Your task to perform on an android device: Show the shopping cart on bestbuy.com. Image 0: 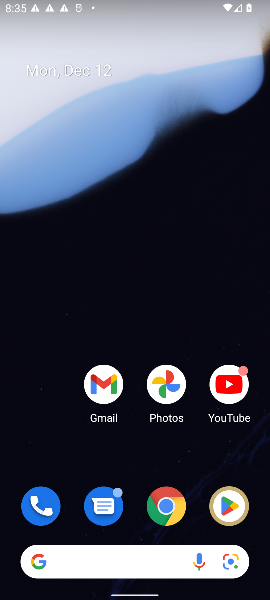
Step 0: click (140, 562)
Your task to perform on an android device: Show the shopping cart on bestbuy.com. Image 1: 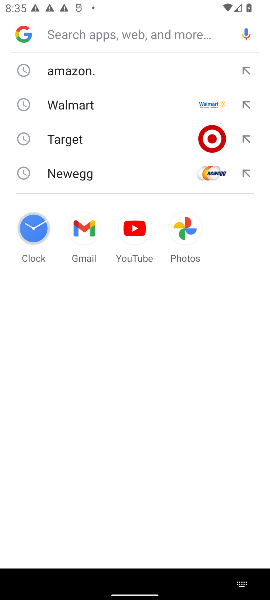
Step 1: type "bestbuy"
Your task to perform on an android device: Show the shopping cart on bestbuy.com. Image 2: 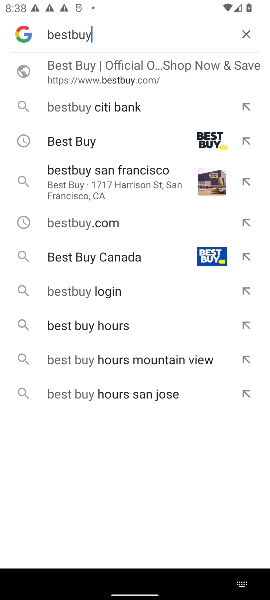
Step 2: click (77, 77)
Your task to perform on an android device: Show the shopping cart on bestbuy.com. Image 3: 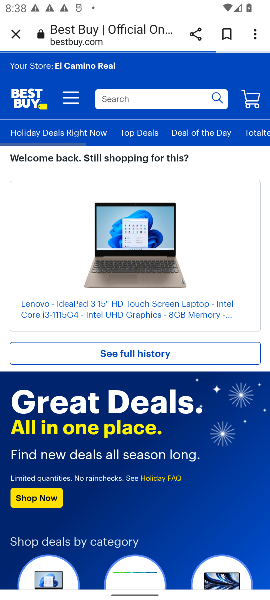
Step 3: click (259, 102)
Your task to perform on an android device: Show the shopping cart on bestbuy.com. Image 4: 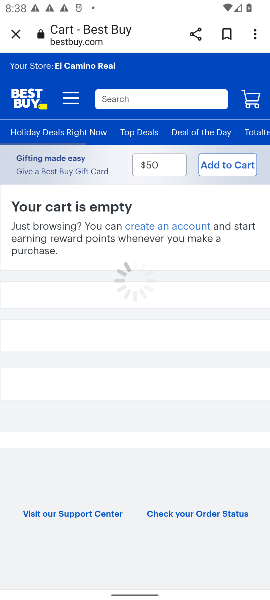
Step 4: task complete